Your task to perform on an android device: see sites visited before in the chrome app Image 0: 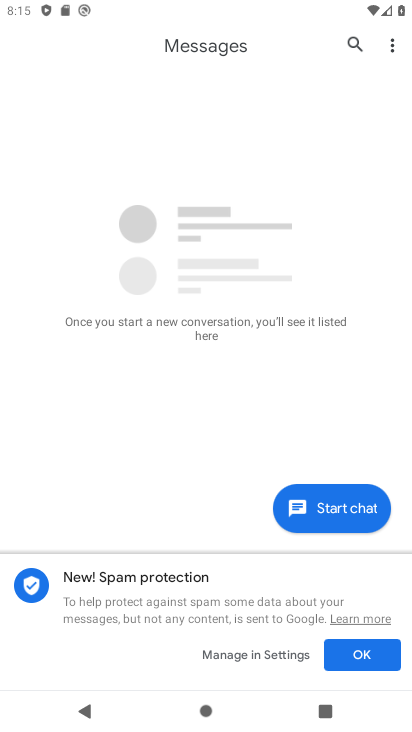
Step 0: press home button
Your task to perform on an android device: see sites visited before in the chrome app Image 1: 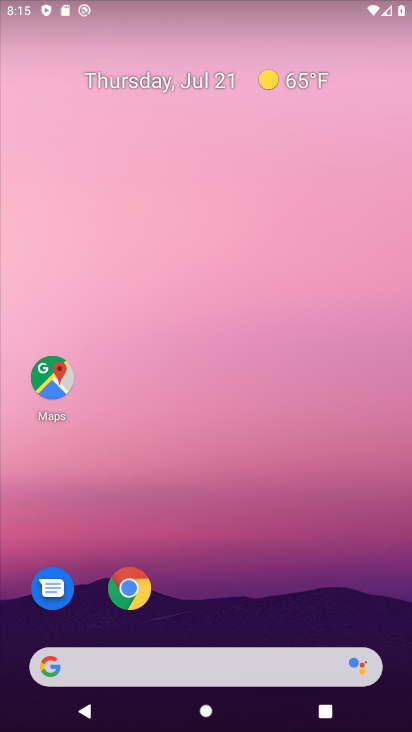
Step 1: click (144, 573)
Your task to perform on an android device: see sites visited before in the chrome app Image 2: 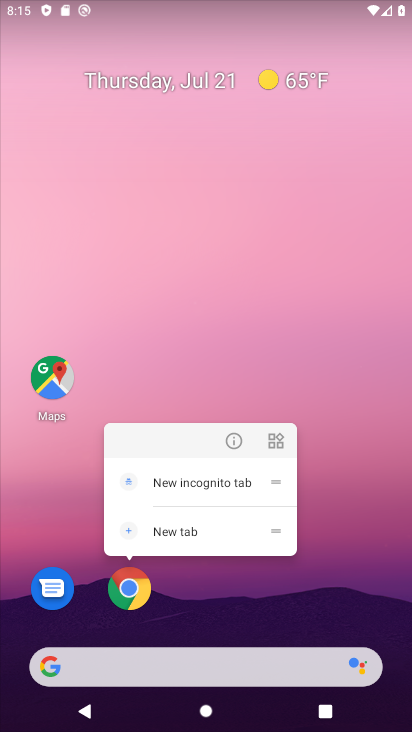
Step 2: click (128, 597)
Your task to perform on an android device: see sites visited before in the chrome app Image 3: 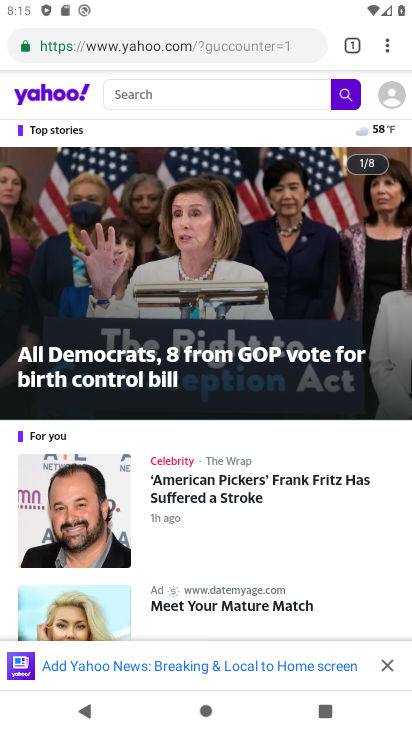
Step 3: click (390, 48)
Your task to perform on an android device: see sites visited before in the chrome app Image 4: 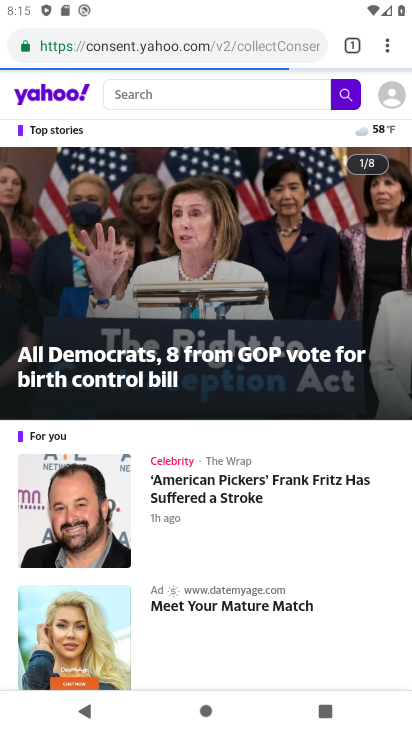
Step 4: task complete